Your task to perform on an android device: Is it going to rain tomorrow? Image 0: 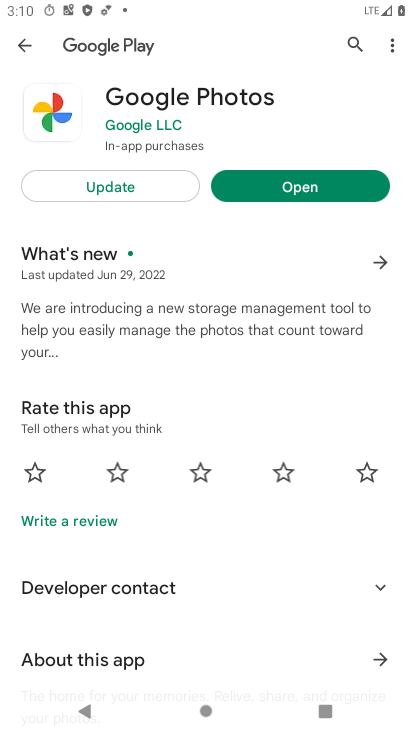
Step 0: press home button
Your task to perform on an android device: Is it going to rain tomorrow? Image 1: 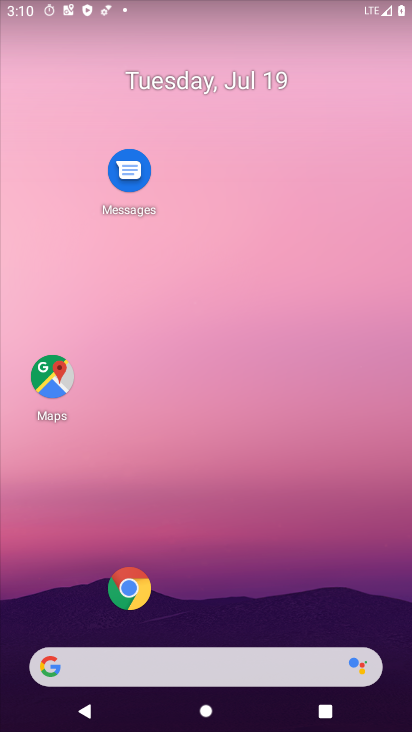
Step 1: click (131, 652)
Your task to perform on an android device: Is it going to rain tomorrow? Image 2: 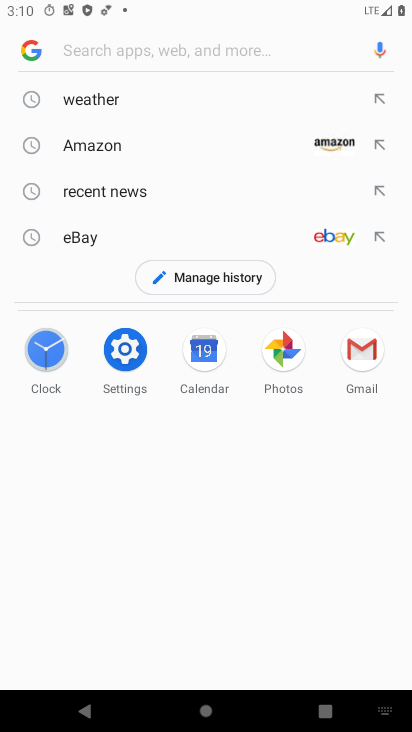
Step 2: type "Is it going to rain tomorrow?"
Your task to perform on an android device: Is it going to rain tomorrow? Image 3: 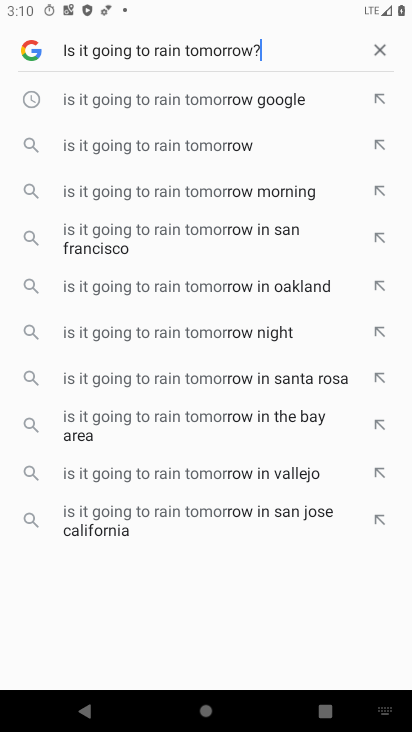
Step 3: type ""
Your task to perform on an android device: Is it going to rain tomorrow? Image 4: 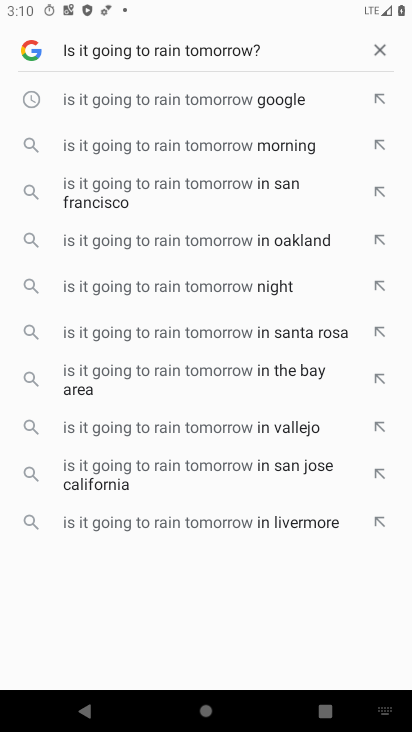
Step 4: type ""
Your task to perform on an android device: Is it going to rain tomorrow? Image 5: 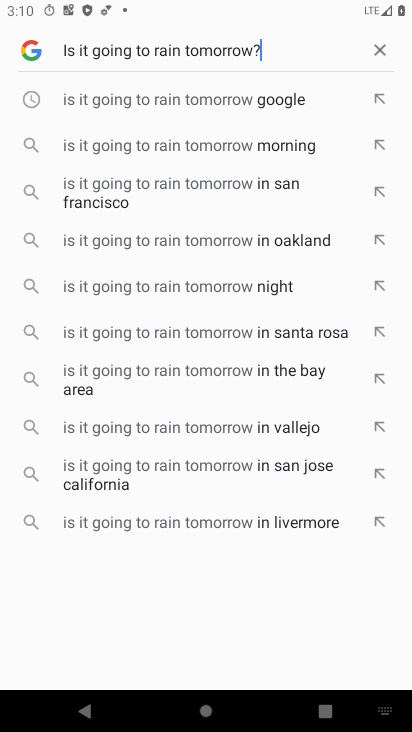
Step 5: type ""
Your task to perform on an android device: Is it going to rain tomorrow? Image 6: 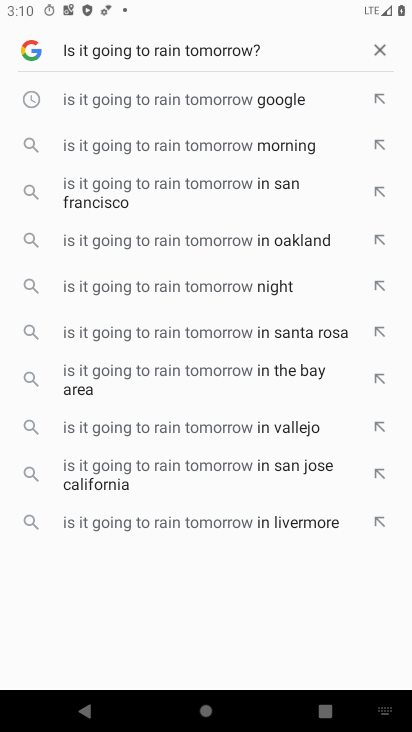
Step 6: task complete